Your task to perform on an android device: Open calendar and show me the first week of next month Image 0: 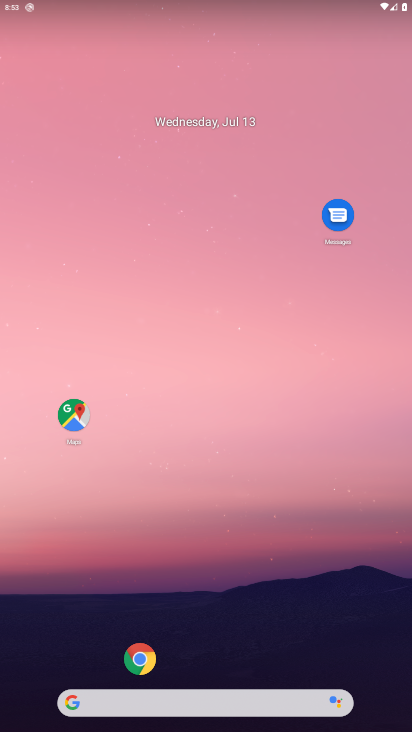
Step 0: drag from (7, 708) to (158, 65)
Your task to perform on an android device: Open calendar and show me the first week of next month Image 1: 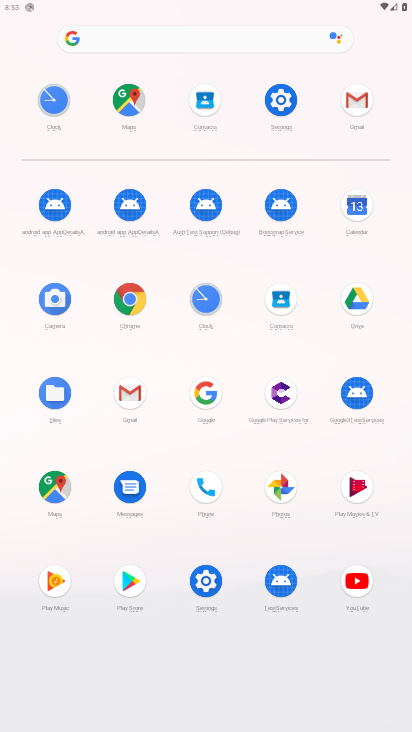
Step 1: click (361, 209)
Your task to perform on an android device: Open calendar and show me the first week of next month Image 2: 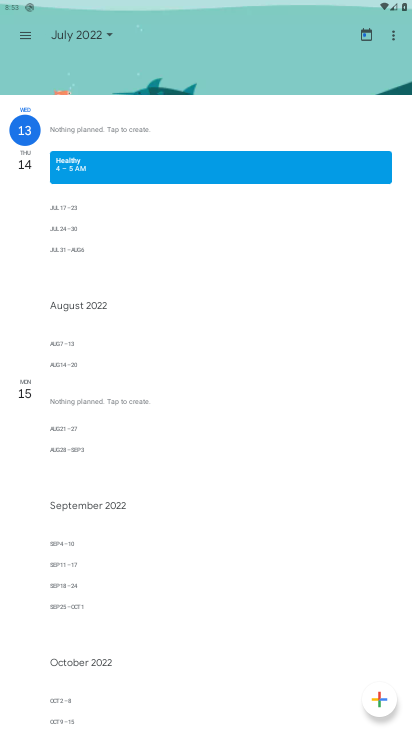
Step 2: click (192, 64)
Your task to perform on an android device: Open calendar and show me the first week of next month Image 3: 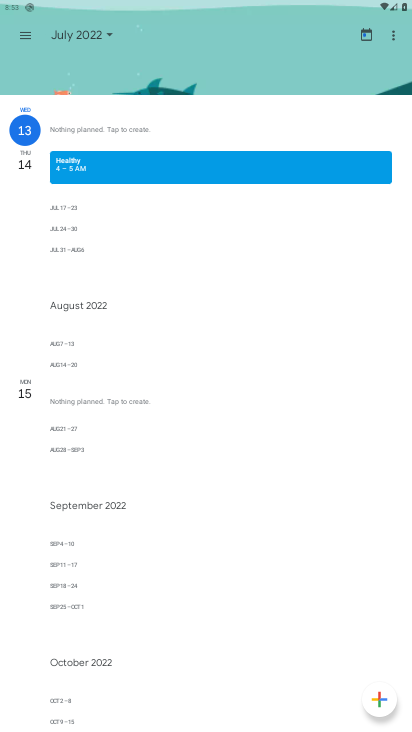
Step 3: drag from (82, 78) to (84, 573)
Your task to perform on an android device: Open calendar and show me the first week of next month Image 4: 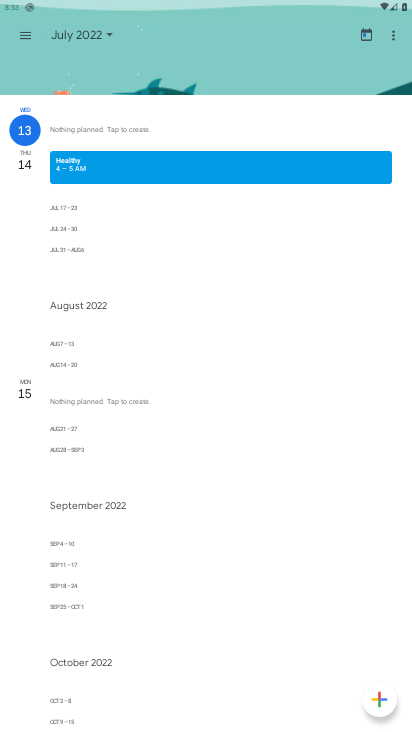
Step 4: click (102, 42)
Your task to perform on an android device: Open calendar and show me the first week of next month Image 5: 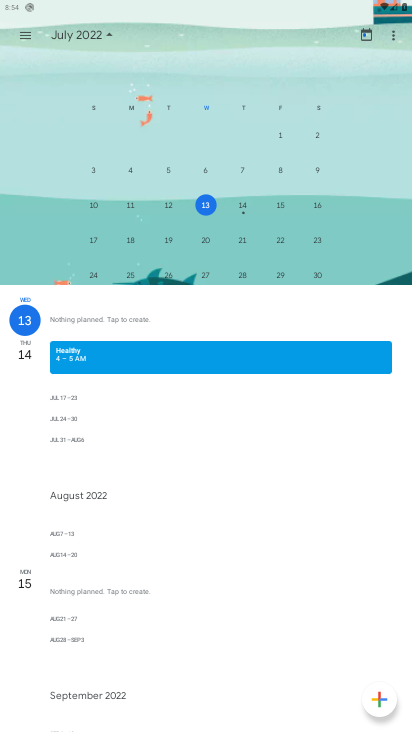
Step 5: drag from (334, 131) to (85, 168)
Your task to perform on an android device: Open calendar and show me the first week of next month Image 6: 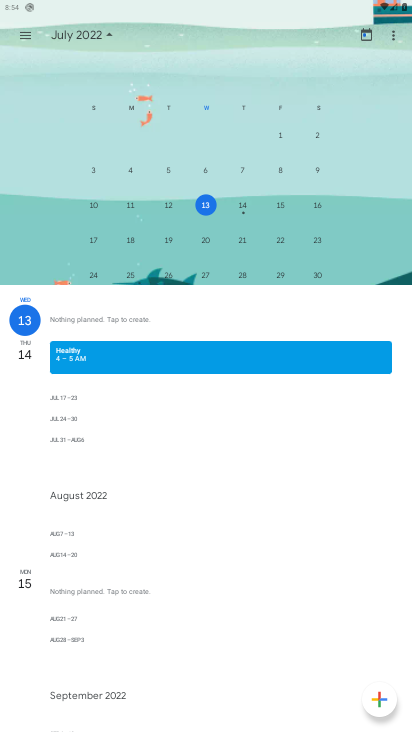
Step 6: drag from (353, 160) to (4, 186)
Your task to perform on an android device: Open calendar and show me the first week of next month Image 7: 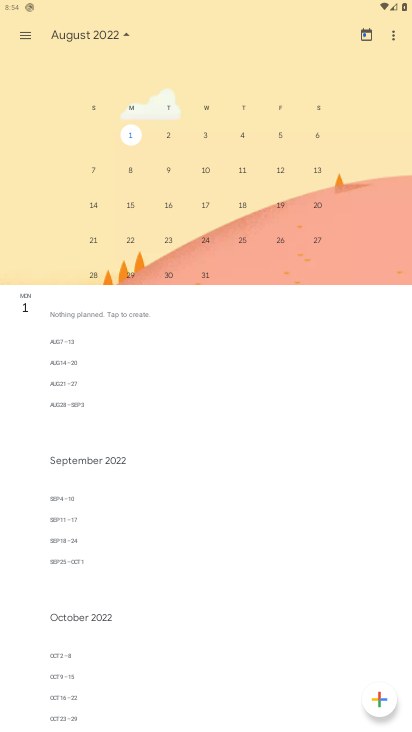
Step 7: drag from (384, 125) to (21, 173)
Your task to perform on an android device: Open calendar and show me the first week of next month Image 8: 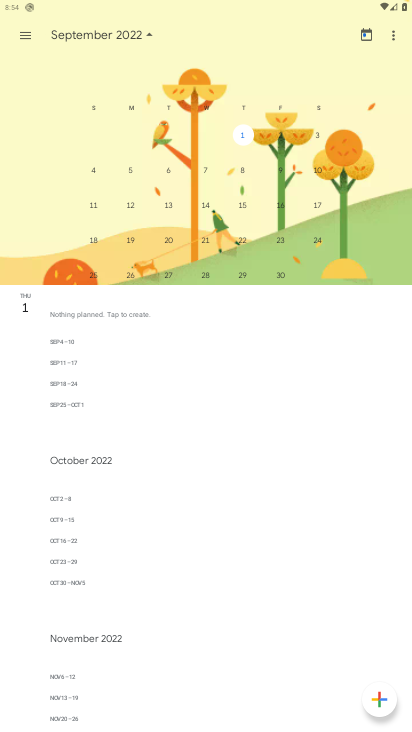
Step 8: drag from (35, 136) to (272, 134)
Your task to perform on an android device: Open calendar and show me the first week of next month Image 9: 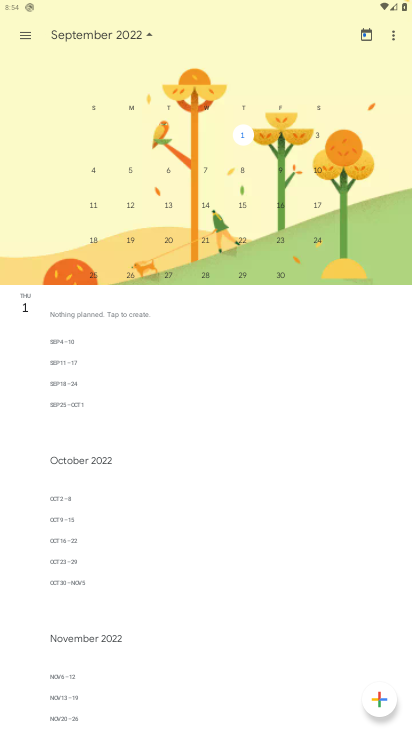
Step 9: drag from (30, 94) to (409, 108)
Your task to perform on an android device: Open calendar and show me the first week of next month Image 10: 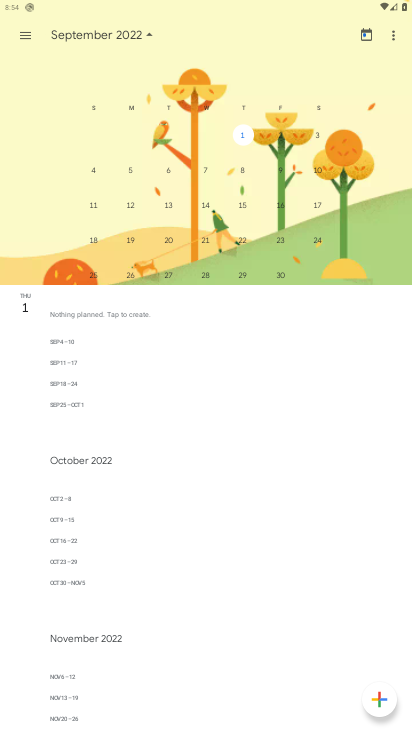
Step 10: drag from (6, 201) to (372, 186)
Your task to perform on an android device: Open calendar and show me the first week of next month Image 11: 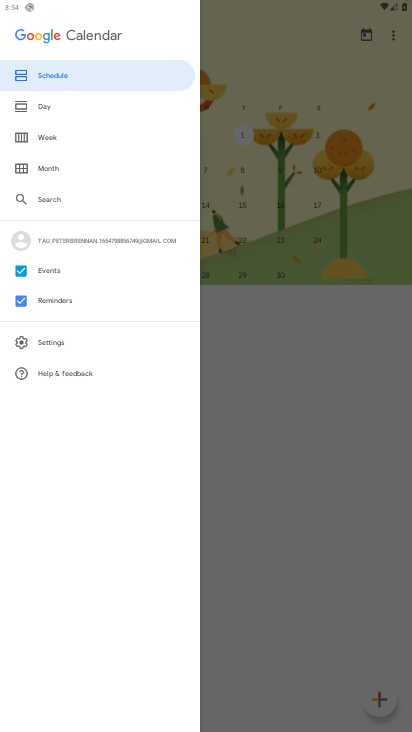
Step 11: click (262, 235)
Your task to perform on an android device: Open calendar and show me the first week of next month Image 12: 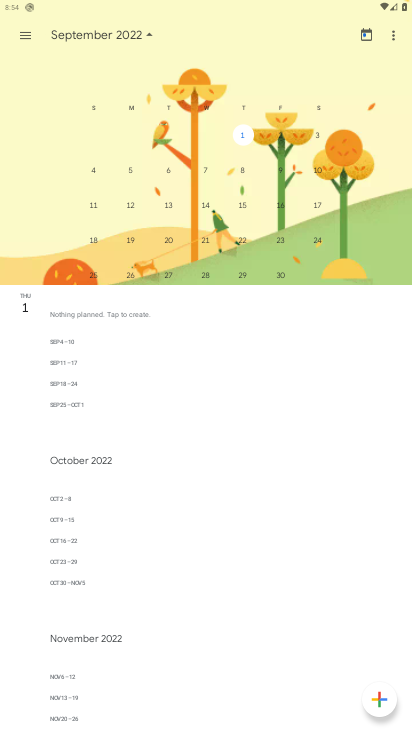
Step 12: click (111, 34)
Your task to perform on an android device: Open calendar and show me the first week of next month Image 13: 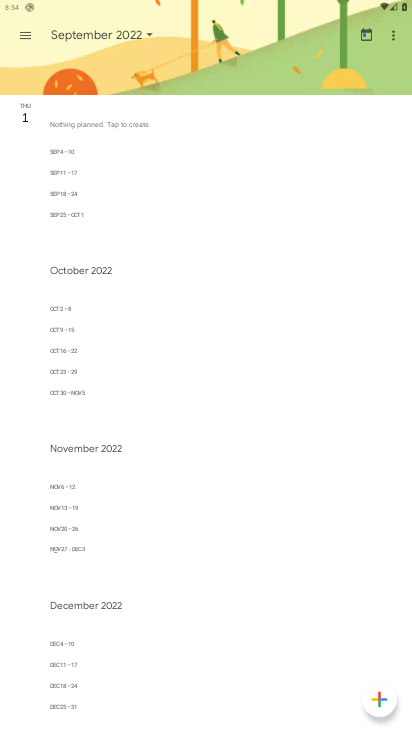
Step 13: click (111, 34)
Your task to perform on an android device: Open calendar and show me the first week of next month Image 14: 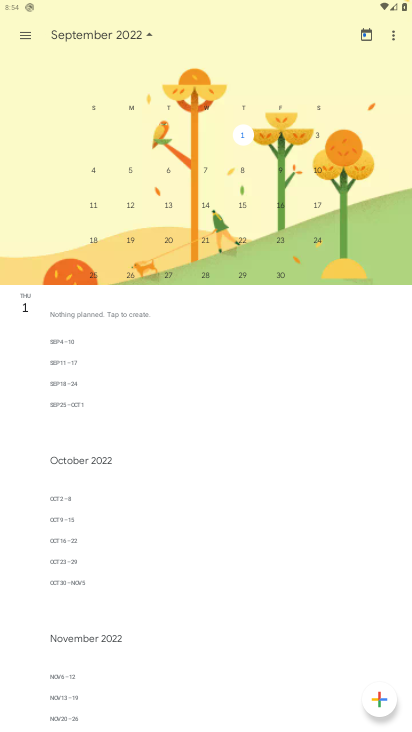
Step 14: click (150, 32)
Your task to perform on an android device: Open calendar and show me the first week of next month Image 15: 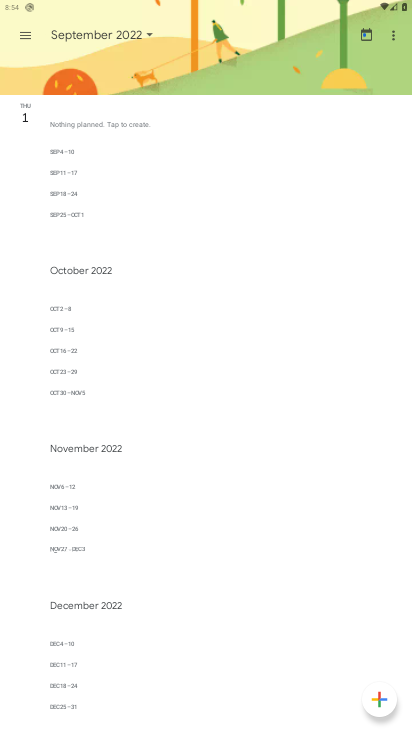
Step 15: click (147, 38)
Your task to perform on an android device: Open calendar and show me the first week of next month Image 16: 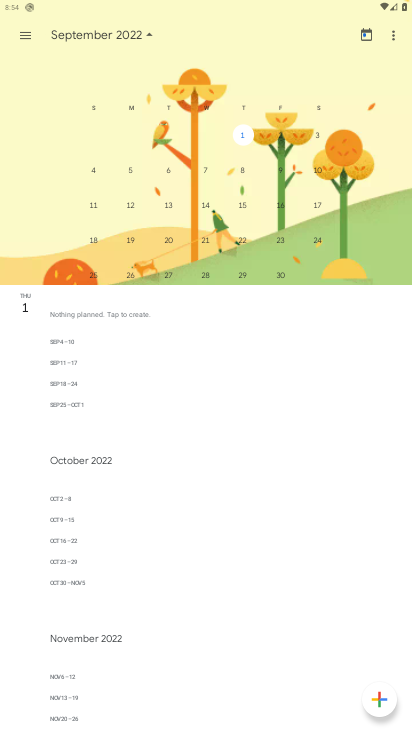
Step 16: task complete